Your task to perform on an android device: change timer sound Image 0: 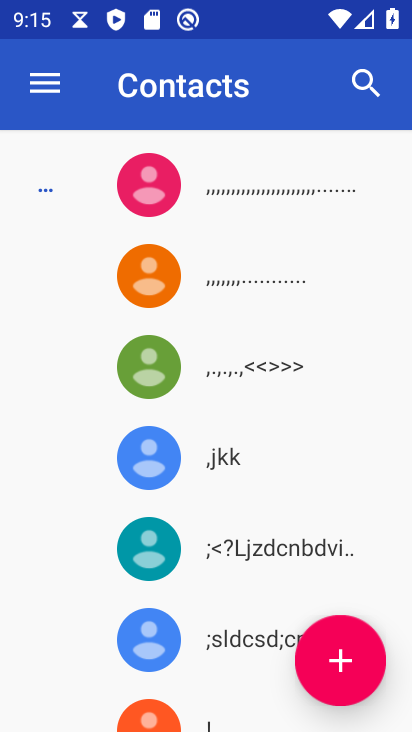
Step 0: press home button
Your task to perform on an android device: change timer sound Image 1: 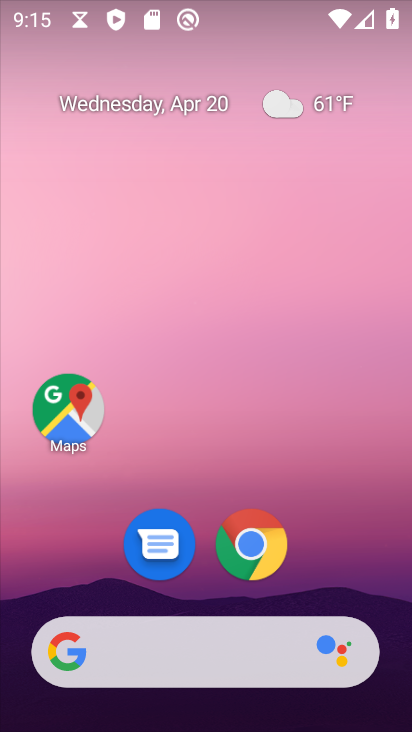
Step 1: drag from (210, 639) to (355, 97)
Your task to perform on an android device: change timer sound Image 2: 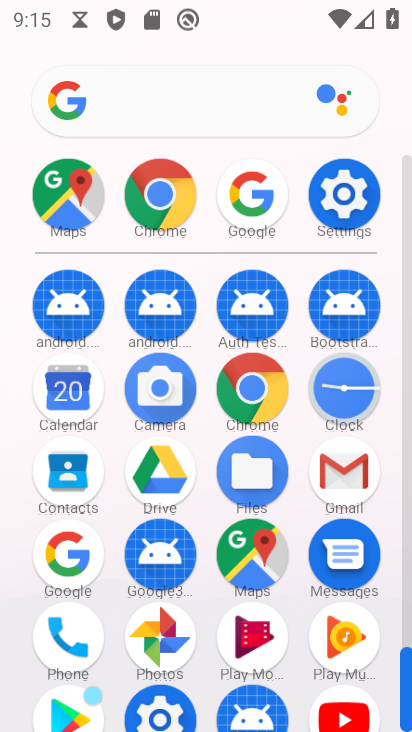
Step 2: click (343, 394)
Your task to perform on an android device: change timer sound Image 3: 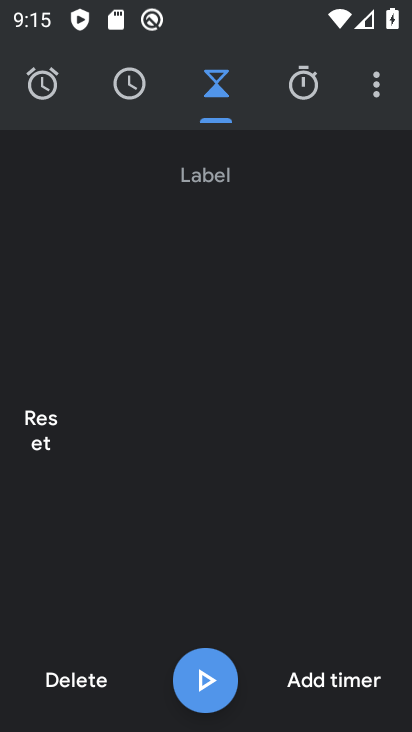
Step 3: click (381, 91)
Your task to perform on an android device: change timer sound Image 4: 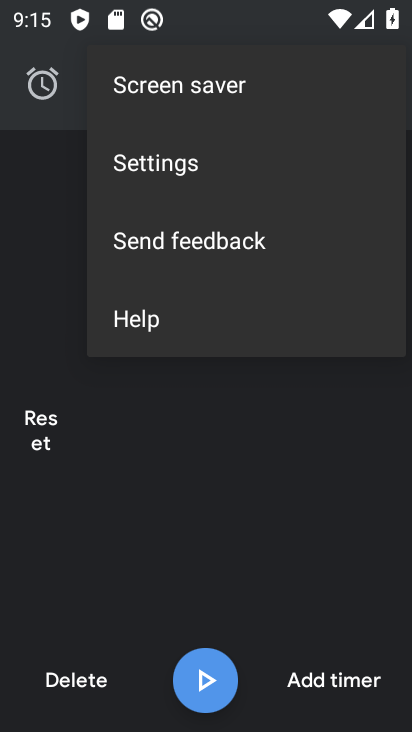
Step 4: click (150, 163)
Your task to perform on an android device: change timer sound Image 5: 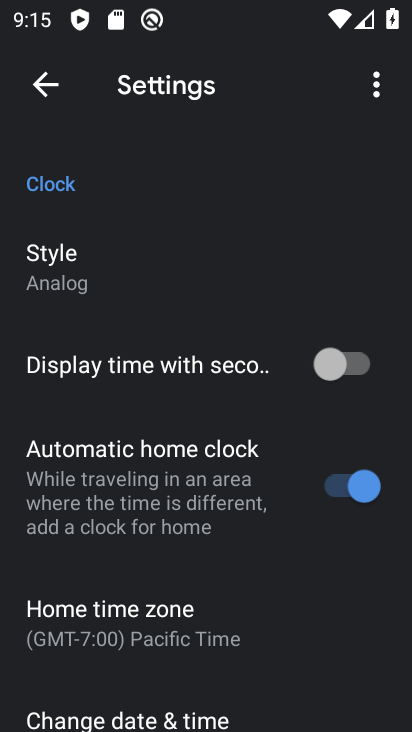
Step 5: drag from (175, 641) to (334, 158)
Your task to perform on an android device: change timer sound Image 6: 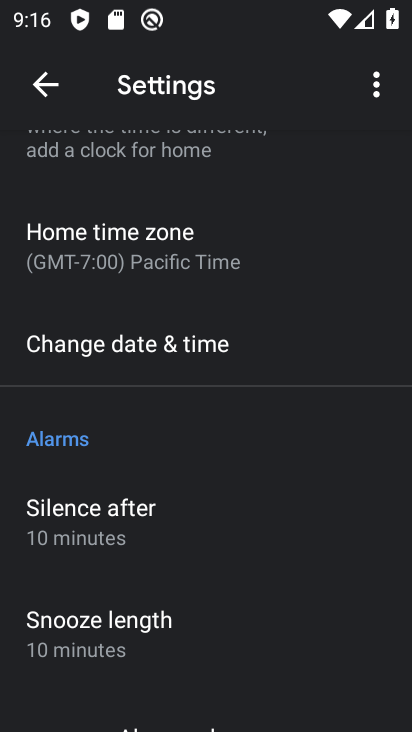
Step 6: drag from (242, 562) to (339, 160)
Your task to perform on an android device: change timer sound Image 7: 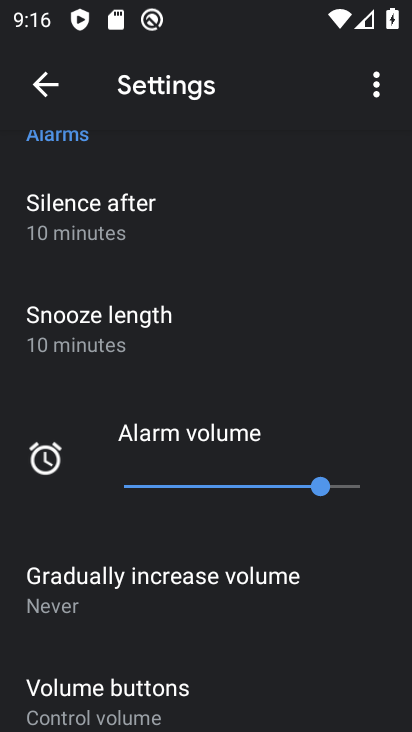
Step 7: drag from (230, 581) to (328, 109)
Your task to perform on an android device: change timer sound Image 8: 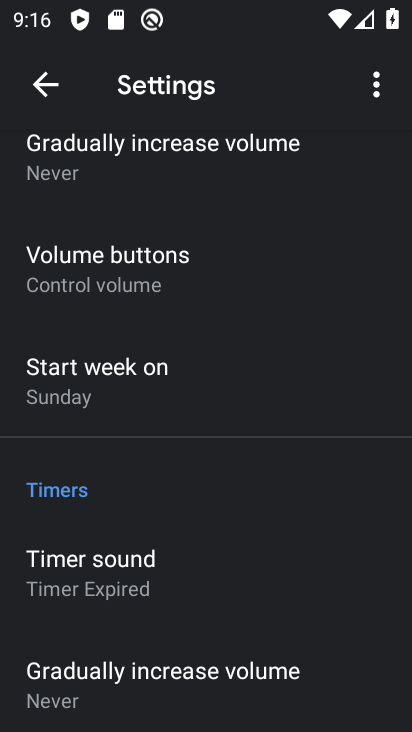
Step 8: click (111, 578)
Your task to perform on an android device: change timer sound Image 9: 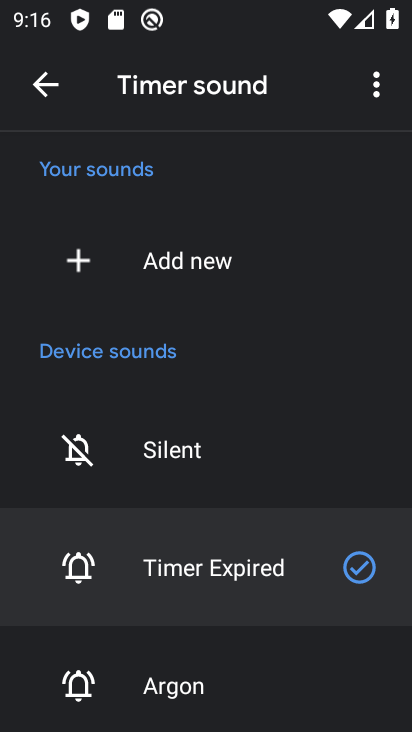
Step 9: click (146, 684)
Your task to perform on an android device: change timer sound Image 10: 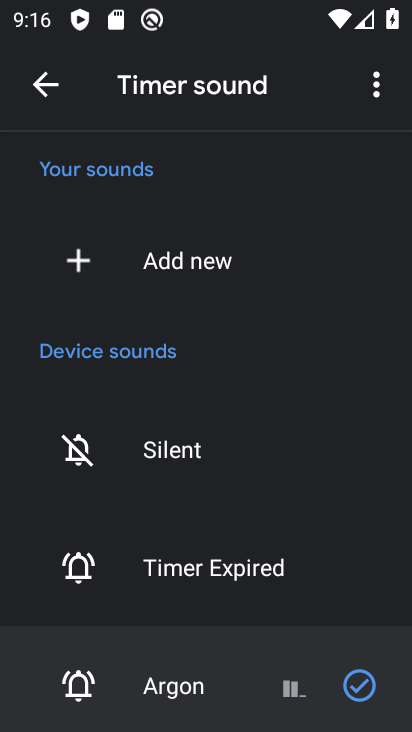
Step 10: task complete